Your task to perform on an android device: change your default location settings in chrome Image 0: 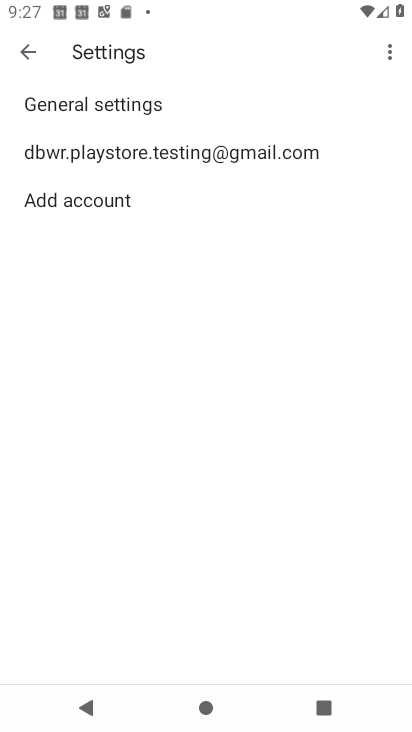
Step 0: press home button
Your task to perform on an android device: change your default location settings in chrome Image 1: 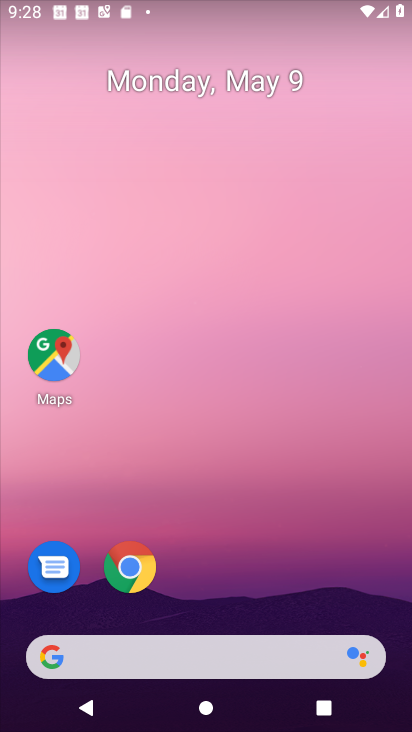
Step 1: click (116, 560)
Your task to perform on an android device: change your default location settings in chrome Image 2: 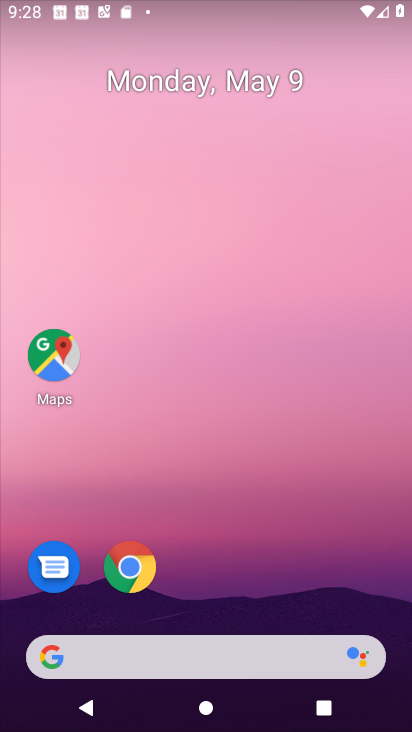
Step 2: click (116, 560)
Your task to perform on an android device: change your default location settings in chrome Image 3: 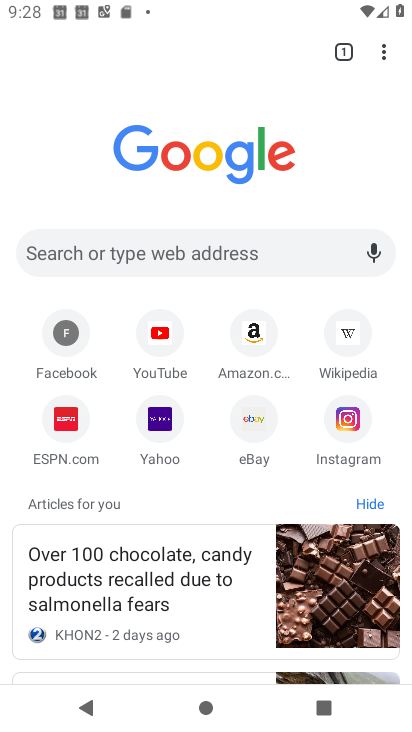
Step 3: drag from (196, 621) to (253, 236)
Your task to perform on an android device: change your default location settings in chrome Image 4: 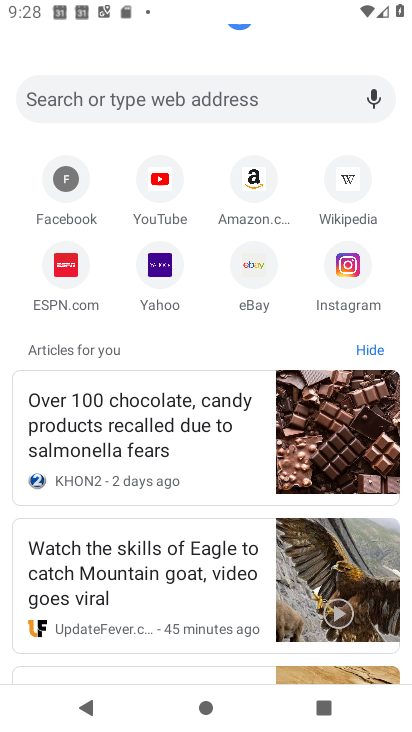
Step 4: drag from (240, 139) to (274, 644)
Your task to perform on an android device: change your default location settings in chrome Image 5: 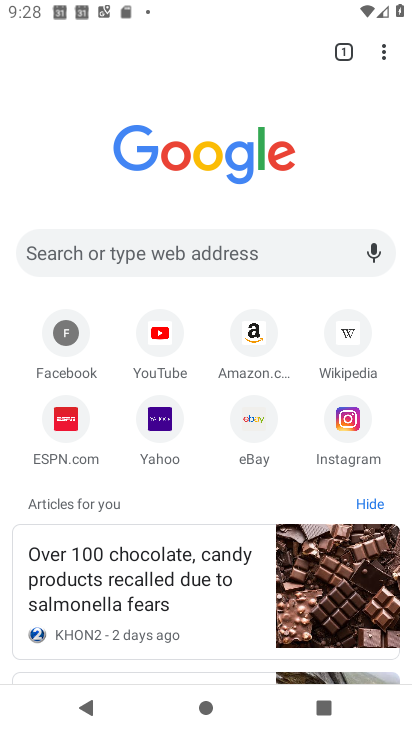
Step 5: click (385, 49)
Your task to perform on an android device: change your default location settings in chrome Image 6: 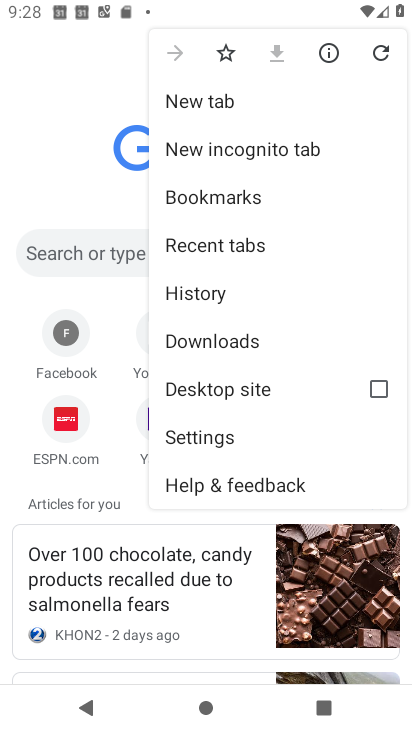
Step 6: click (225, 286)
Your task to perform on an android device: change your default location settings in chrome Image 7: 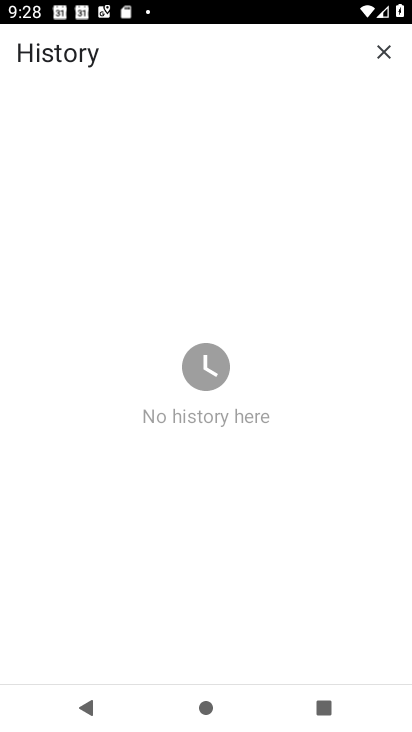
Step 7: click (378, 49)
Your task to perform on an android device: change your default location settings in chrome Image 8: 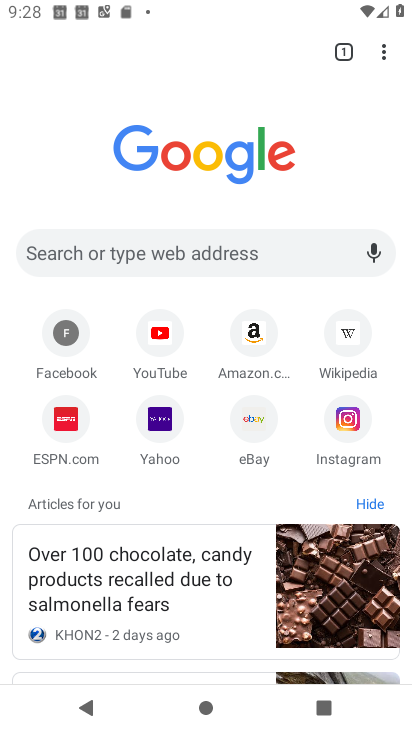
Step 8: click (387, 45)
Your task to perform on an android device: change your default location settings in chrome Image 9: 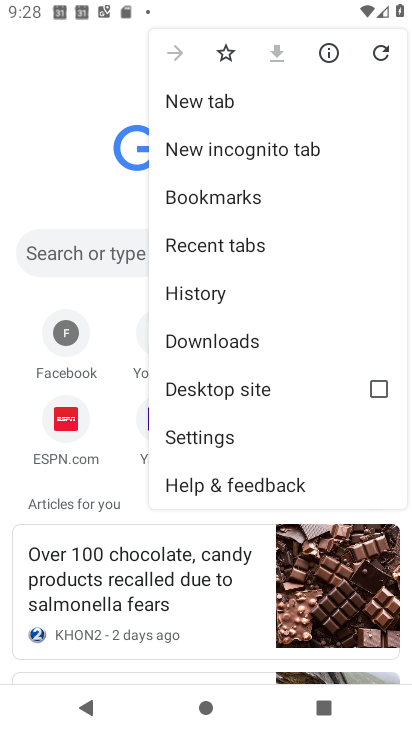
Step 9: click (237, 431)
Your task to perform on an android device: change your default location settings in chrome Image 10: 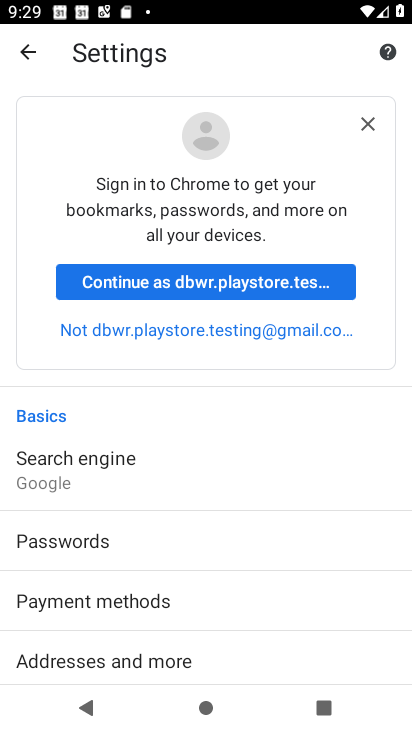
Step 10: drag from (195, 593) to (315, 120)
Your task to perform on an android device: change your default location settings in chrome Image 11: 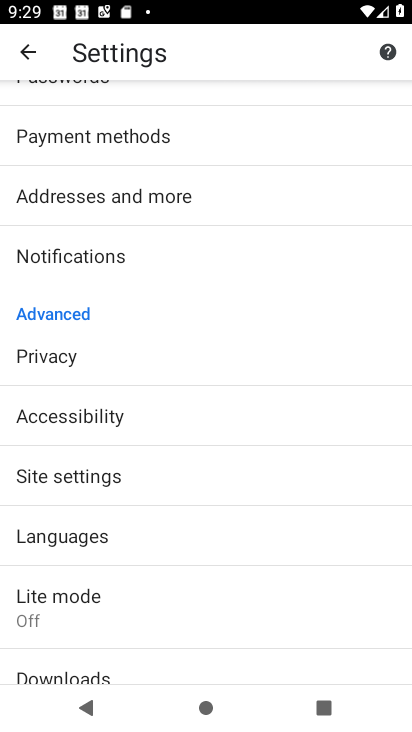
Step 11: click (92, 474)
Your task to perform on an android device: change your default location settings in chrome Image 12: 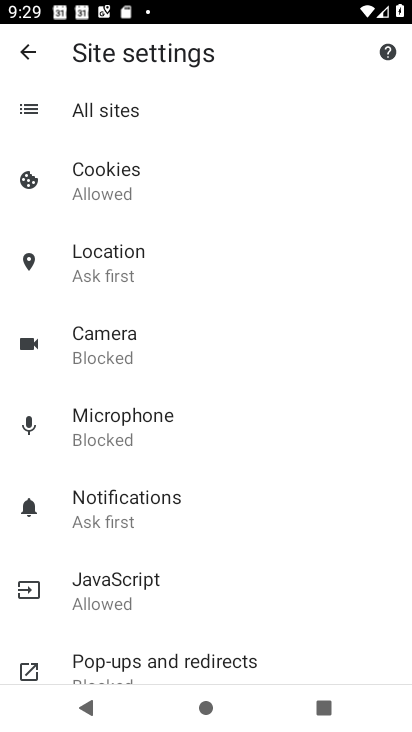
Step 12: click (111, 249)
Your task to perform on an android device: change your default location settings in chrome Image 13: 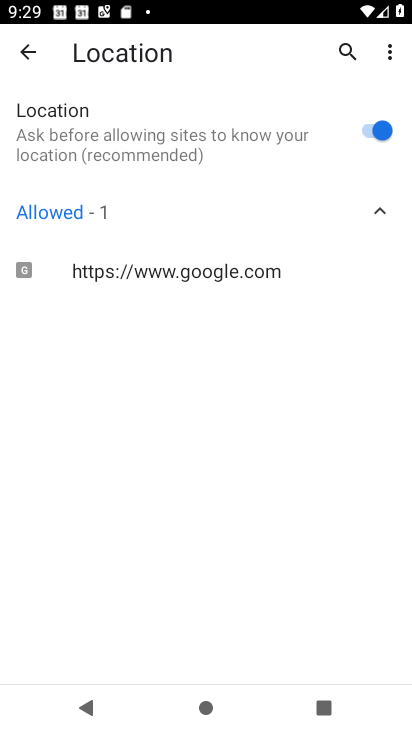
Step 13: drag from (188, 578) to (272, 310)
Your task to perform on an android device: change your default location settings in chrome Image 14: 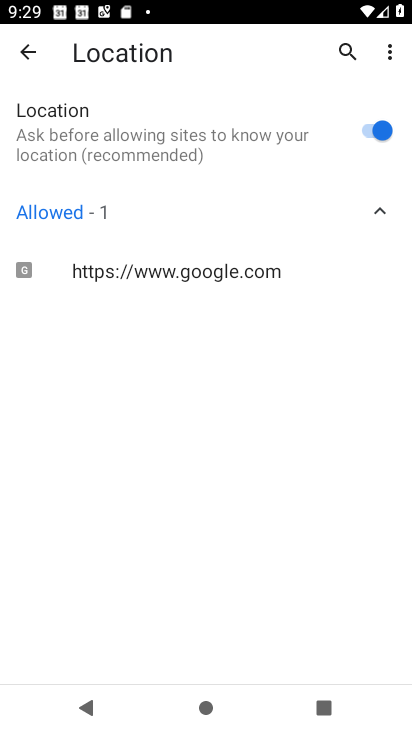
Step 14: click (403, 121)
Your task to perform on an android device: change your default location settings in chrome Image 15: 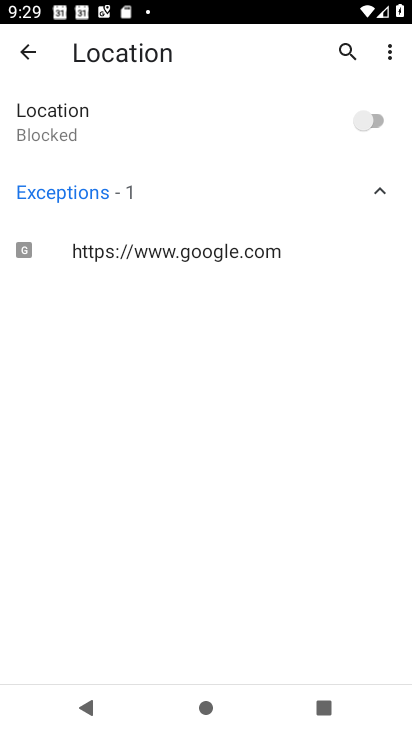
Step 15: task complete